Your task to perform on an android device: change the upload size in google photos Image 0: 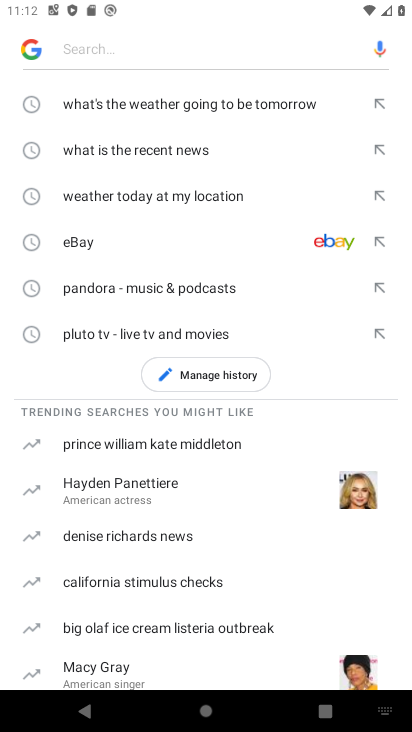
Step 0: press home button
Your task to perform on an android device: change the upload size in google photos Image 1: 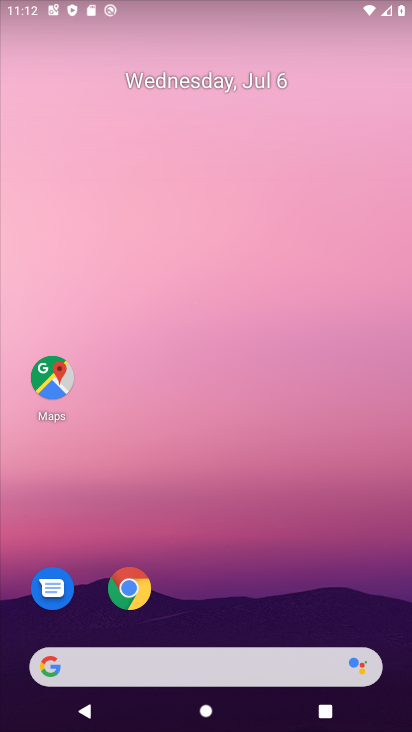
Step 1: drag from (182, 579) to (208, 269)
Your task to perform on an android device: change the upload size in google photos Image 2: 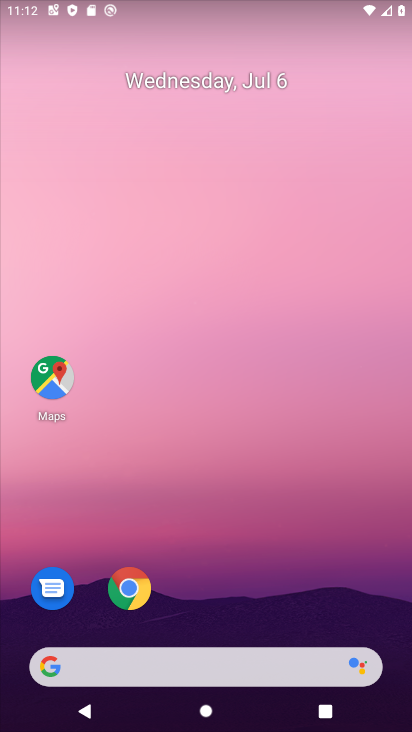
Step 2: drag from (260, 608) to (217, 228)
Your task to perform on an android device: change the upload size in google photos Image 3: 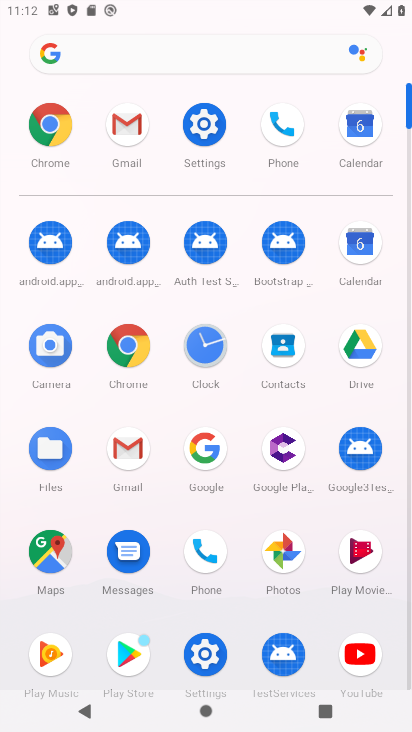
Step 3: click (274, 545)
Your task to perform on an android device: change the upload size in google photos Image 4: 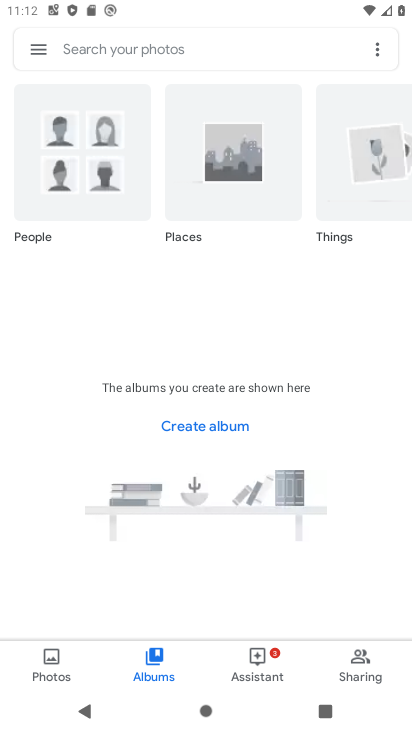
Step 4: click (42, 39)
Your task to perform on an android device: change the upload size in google photos Image 5: 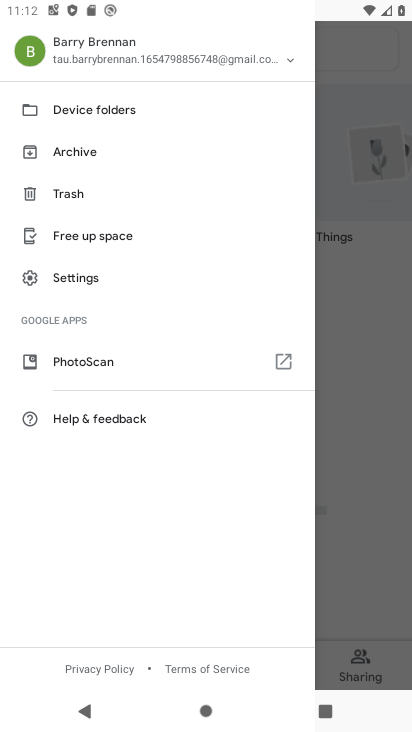
Step 5: click (95, 269)
Your task to perform on an android device: change the upload size in google photos Image 6: 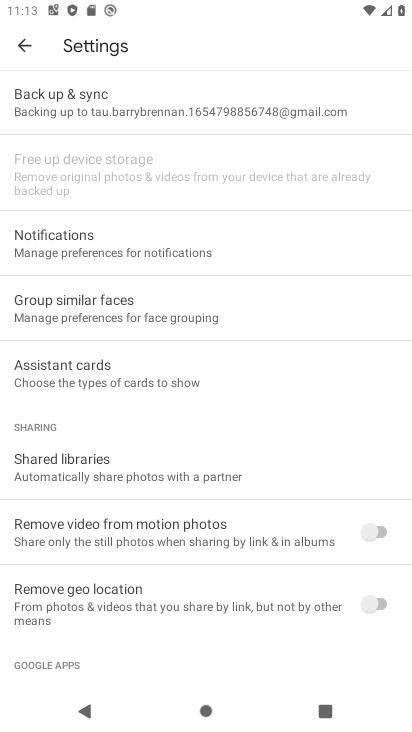
Step 6: click (161, 104)
Your task to perform on an android device: change the upload size in google photos Image 7: 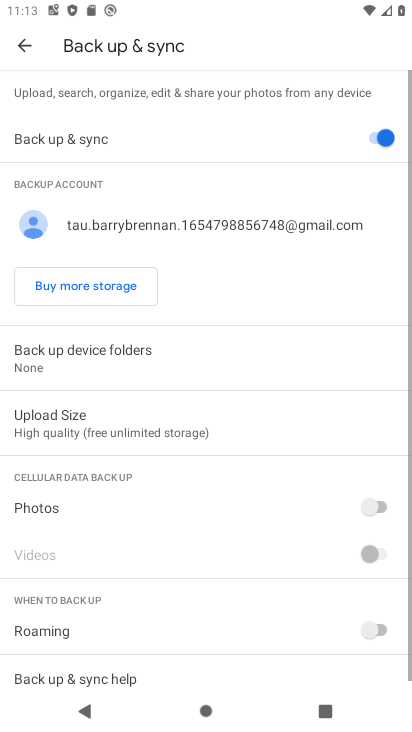
Step 7: click (103, 441)
Your task to perform on an android device: change the upload size in google photos Image 8: 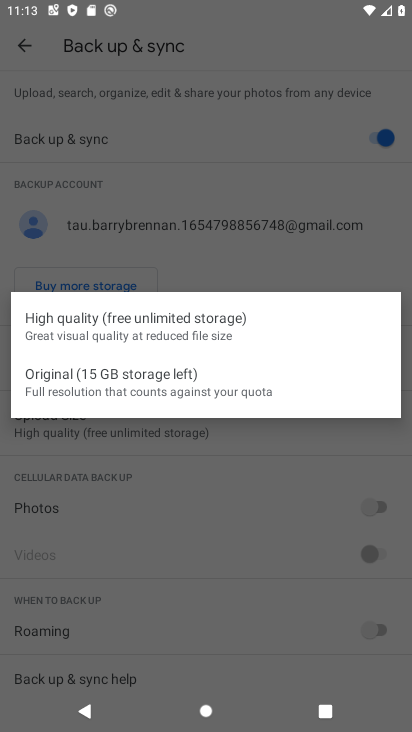
Step 8: click (144, 395)
Your task to perform on an android device: change the upload size in google photos Image 9: 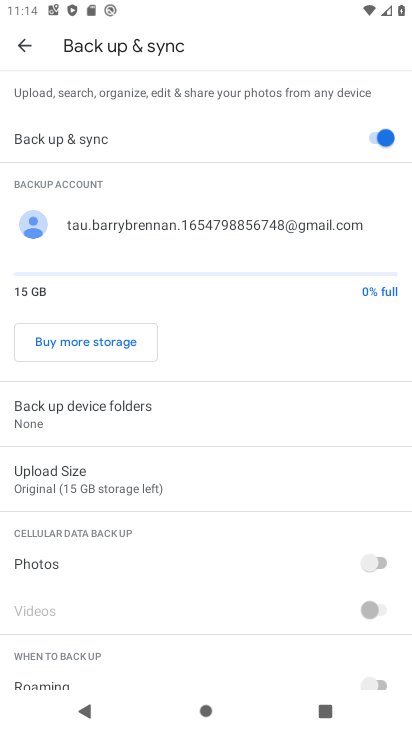
Step 9: task complete